Your task to perform on an android device: set the timer Image 0: 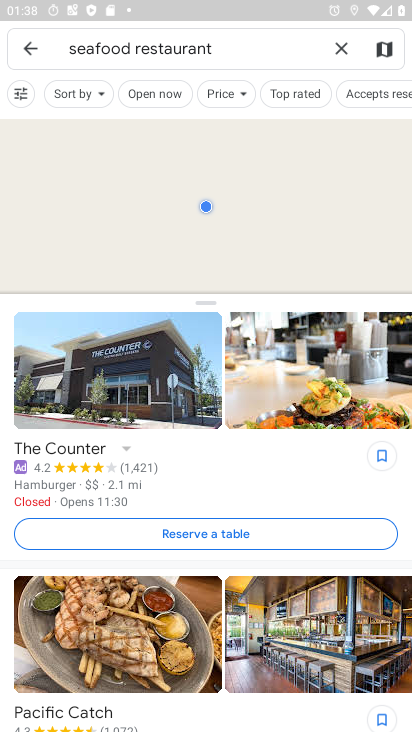
Step 0: press home button
Your task to perform on an android device: set the timer Image 1: 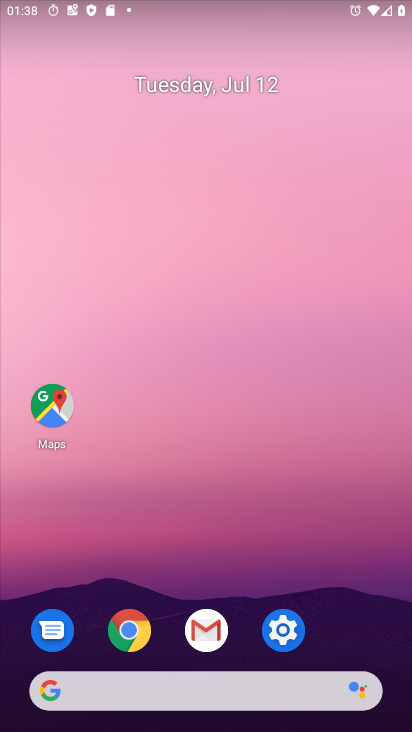
Step 1: drag from (280, 707) to (162, 315)
Your task to perform on an android device: set the timer Image 2: 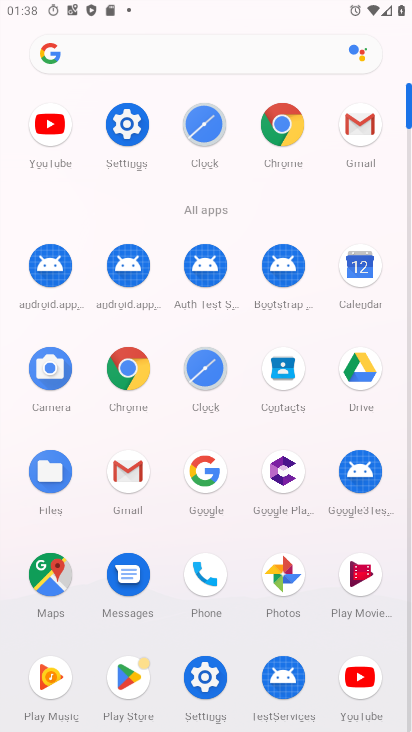
Step 2: click (218, 374)
Your task to perform on an android device: set the timer Image 3: 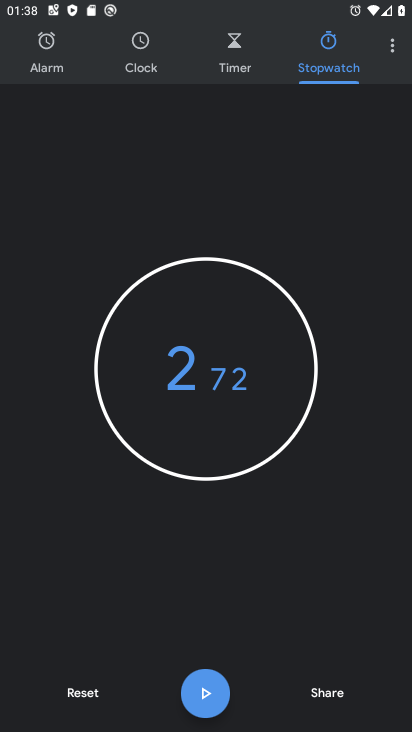
Step 3: click (241, 80)
Your task to perform on an android device: set the timer Image 4: 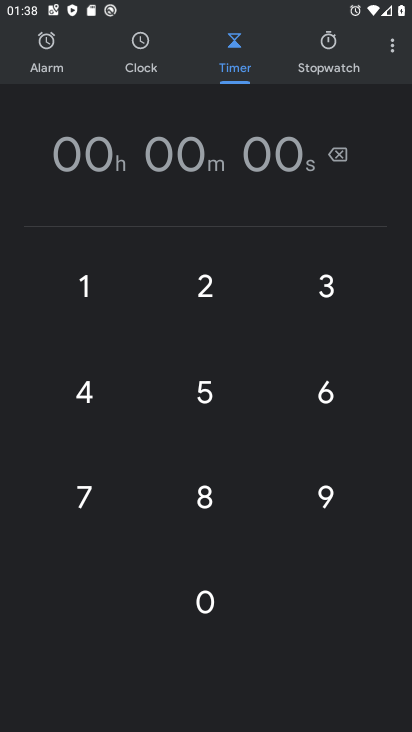
Step 4: click (185, 404)
Your task to perform on an android device: set the timer Image 5: 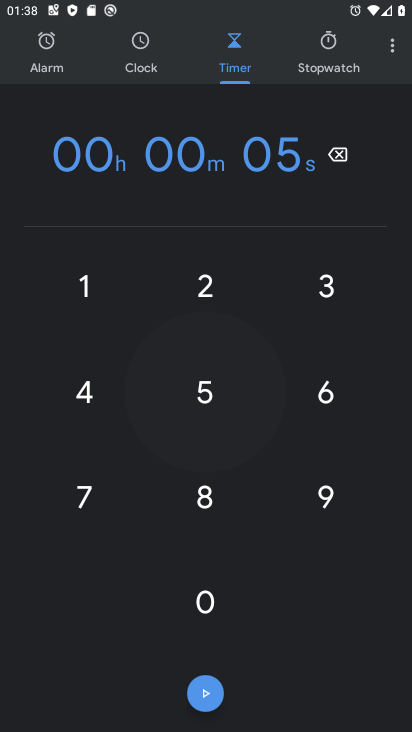
Step 5: click (103, 389)
Your task to perform on an android device: set the timer Image 6: 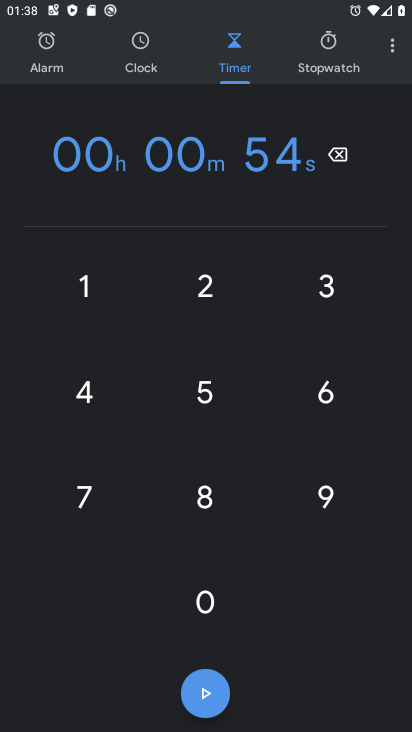
Step 6: click (193, 297)
Your task to perform on an android device: set the timer Image 7: 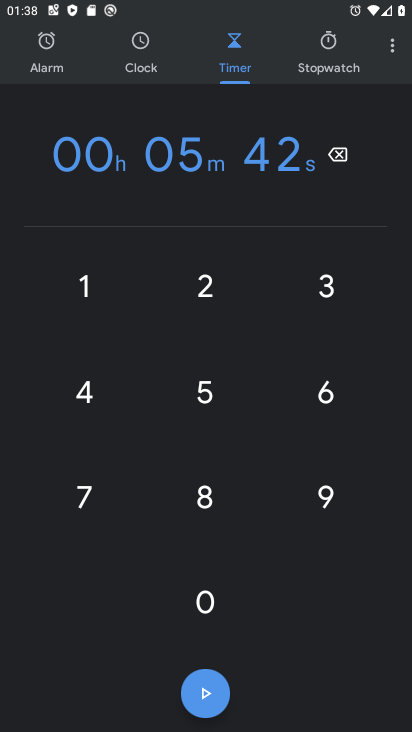
Step 7: click (217, 493)
Your task to perform on an android device: set the timer Image 8: 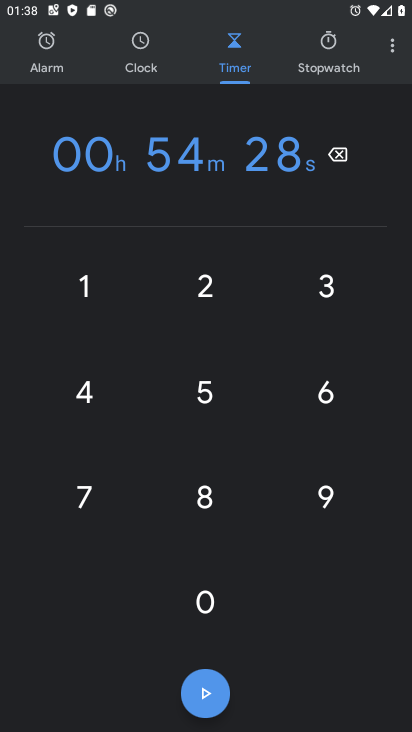
Step 8: click (213, 578)
Your task to perform on an android device: set the timer Image 9: 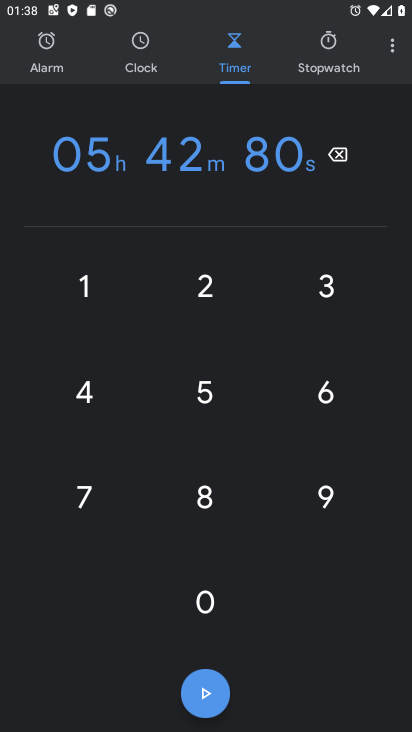
Step 9: click (317, 483)
Your task to perform on an android device: set the timer Image 10: 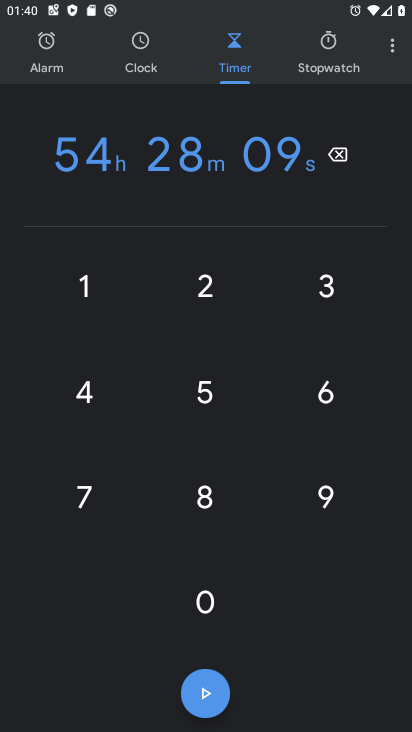
Step 10: task complete